Your task to perform on an android device: delete browsing data in the chrome app Image 0: 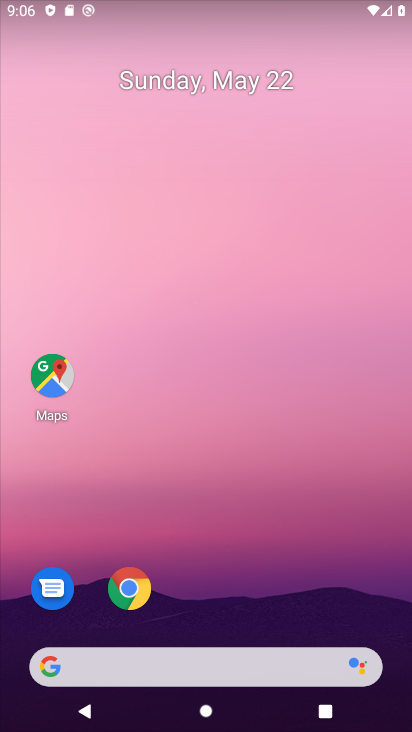
Step 0: click (133, 586)
Your task to perform on an android device: delete browsing data in the chrome app Image 1: 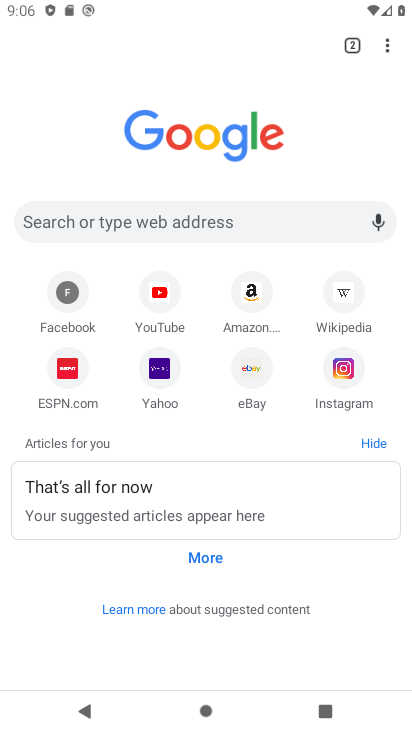
Step 1: drag from (383, 36) to (230, 381)
Your task to perform on an android device: delete browsing data in the chrome app Image 2: 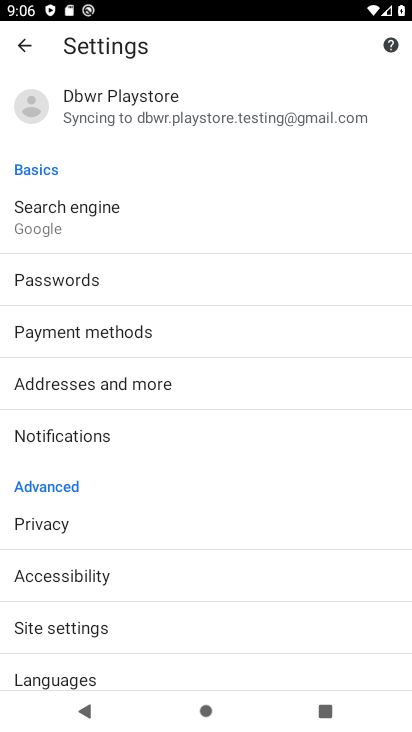
Step 2: click (40, 521)
Your task to perform on an android device: delete browsing data in the chrome app Image 3: 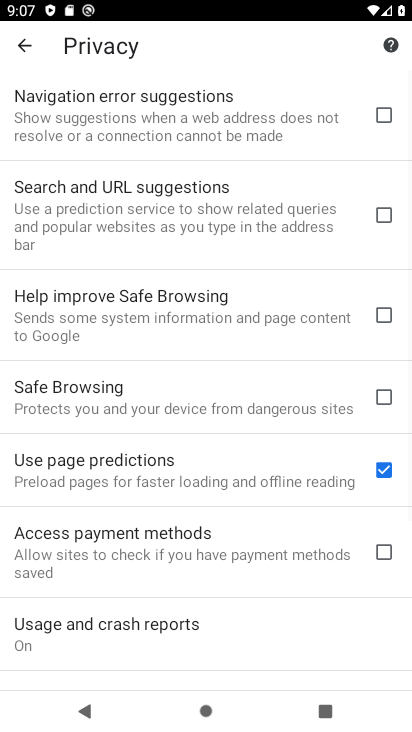
Step 3: drag from (229, 623) to (331, 79)
Your task to perform on an android device: delete browsing data in the chrome app Image 4: 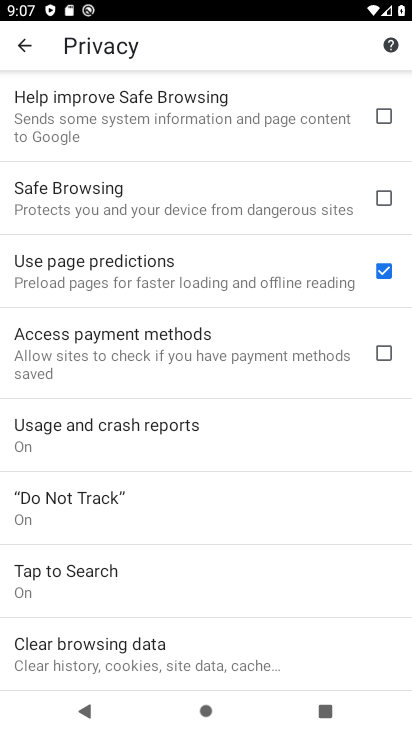
Step 4: click (109, 650)
Your task to perform on an android device: delete browsing data in the chrome app Image 5: 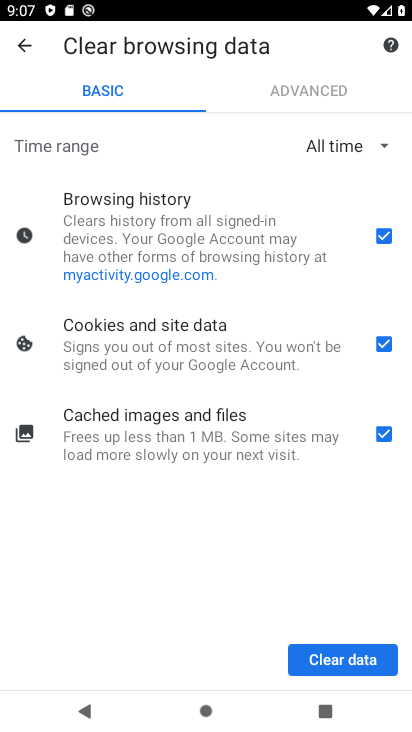
Step 5: click (344, 661)
Your task to perform on an android device: delete browsing data in the chrome app Image 6: 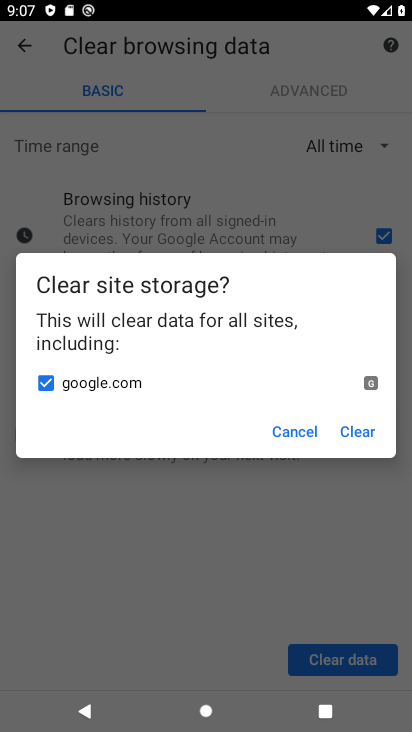
Step 6: click (344, 661)
Your task to perform on an android device: delete browsing data in the chrome app Image 7: 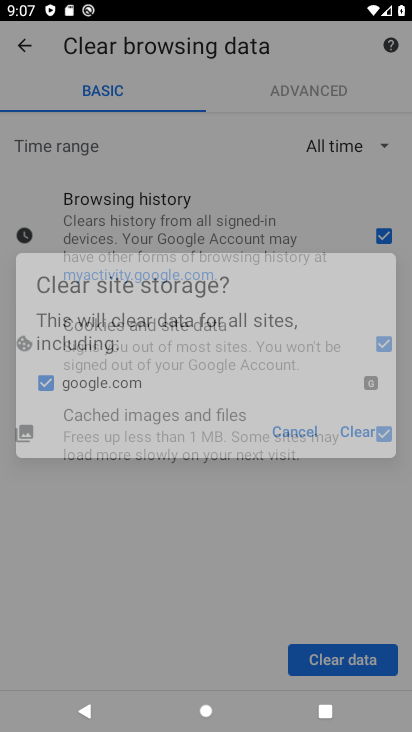
Step 7: click (358, 427)
Your task to perform on an android device: delete browsing data in the chrome app Image 8: 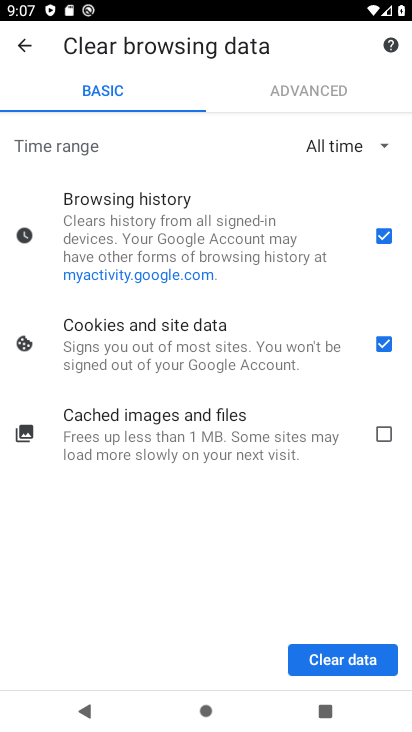
Step 8: click (353, 655)
Your task to perform on an android device: delete browsing data in the chrome app Image 9: 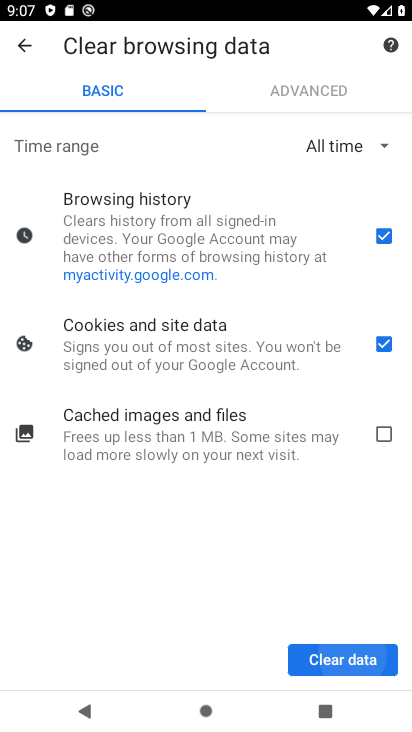
Step 9: click (353, 655)
Your task to perform on an android device: delete browsing data in the chrome app Image 10: 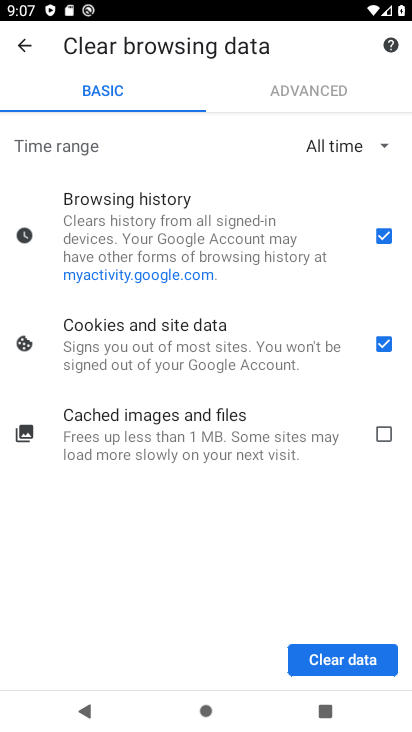
Step 10: click (352, 653)
Your task to perform on an android device: delete browsing data in the chrome app Image 11: 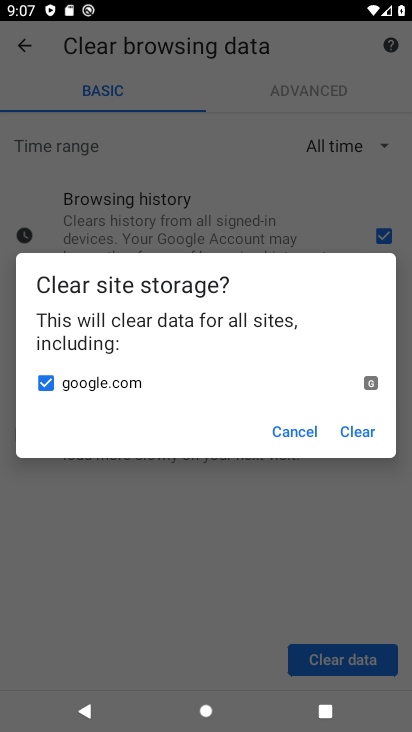
Step 11: click (364, 430)
Your task to perform on an android device: delete browsing data in the chrome app Image 12: 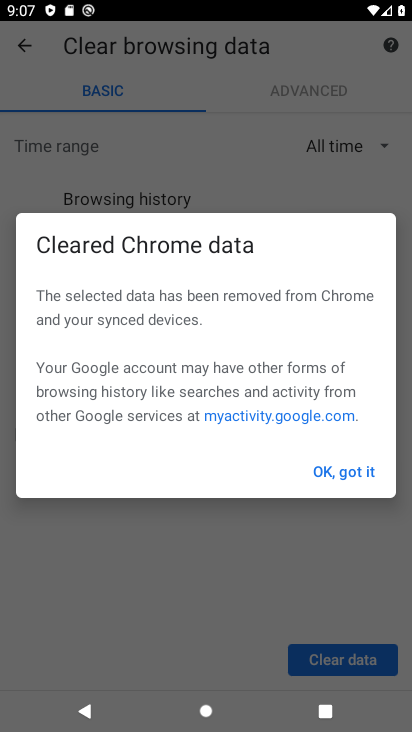
Step 12: click (353, 470)
Your task to perform on an android device: delete browsing data in the chrome app Image 13: 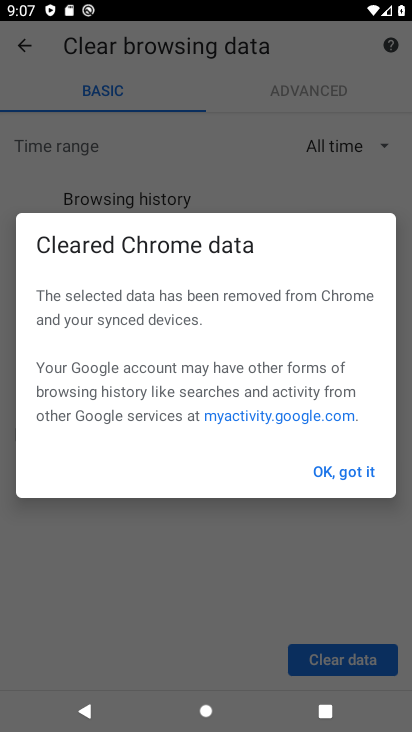
Step 13: click (353, 470)
Your task to perform on an android device: delete browsing data in the chrome app Image 14: 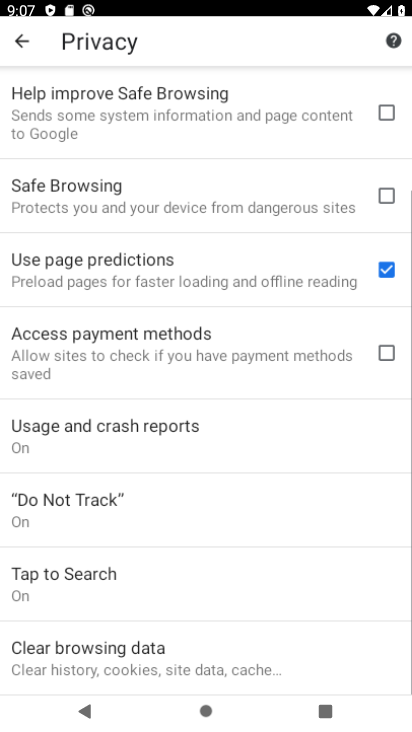
Step 14: click (353, 470)
Your task to perform on an android device: delete browsing data in the chrome app Image 15: 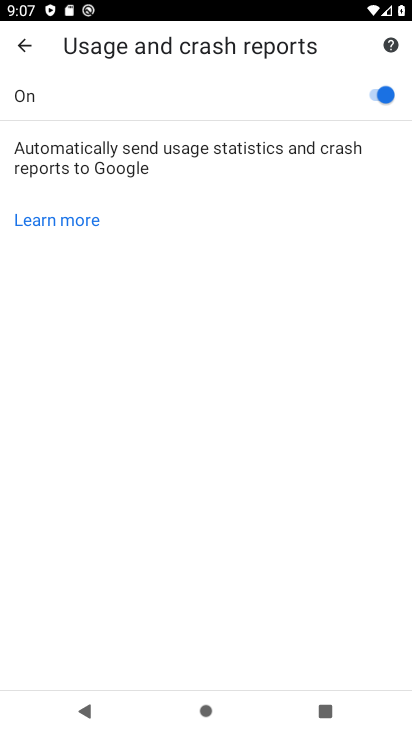
Step 15: task complete